Your task to perform on an android device: Clear the shopping cart on walmart. Search for amazon basics triple a on walmart, select the first entry, and add it to the cart. Image 0: 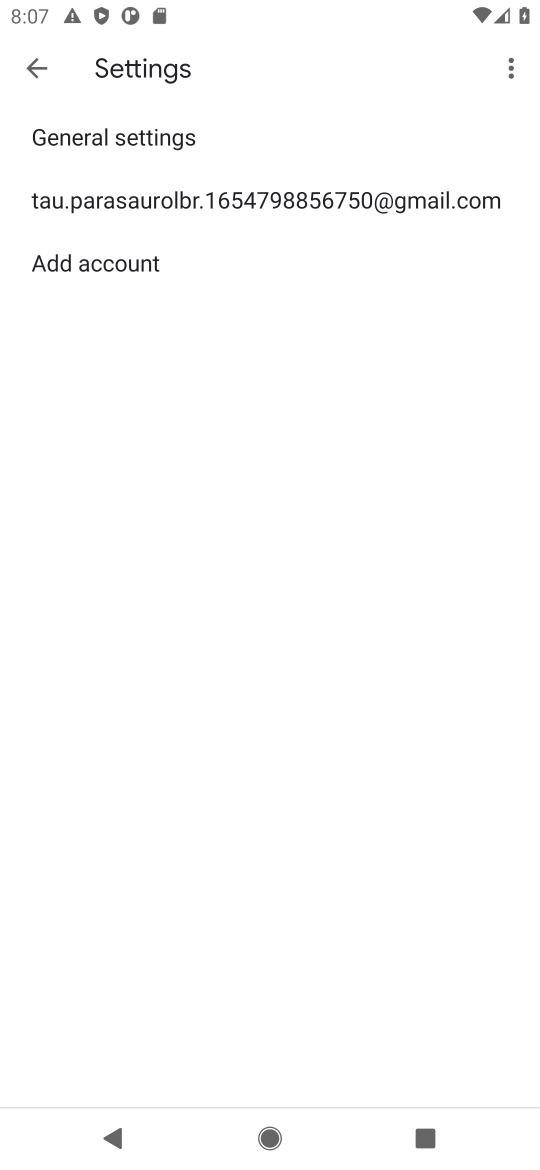
Step 0: press home button
Your task to perform on an android device: Clear the shopping cart on walmart. Search for amazon basics triple a on walmart, select the first entry, and add it to the cart. Image 1: 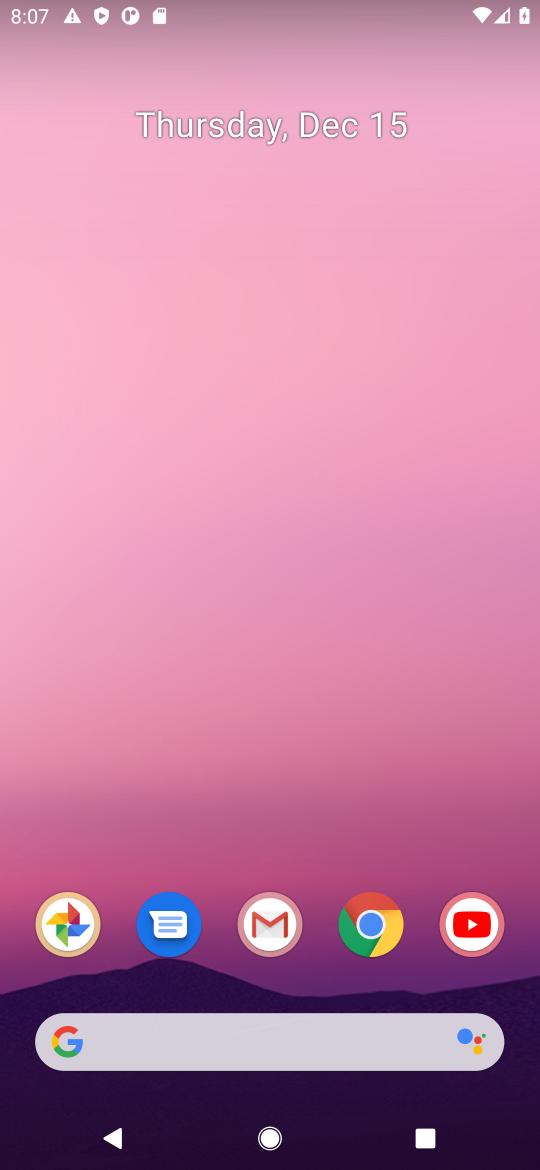
Step 1: click (354, 924)
Your task to perform on an android device: Clear the shopping cart on walmart. Search for amazon basics triple a on walmart, select the first entry, and add it to the cart. Image 2: 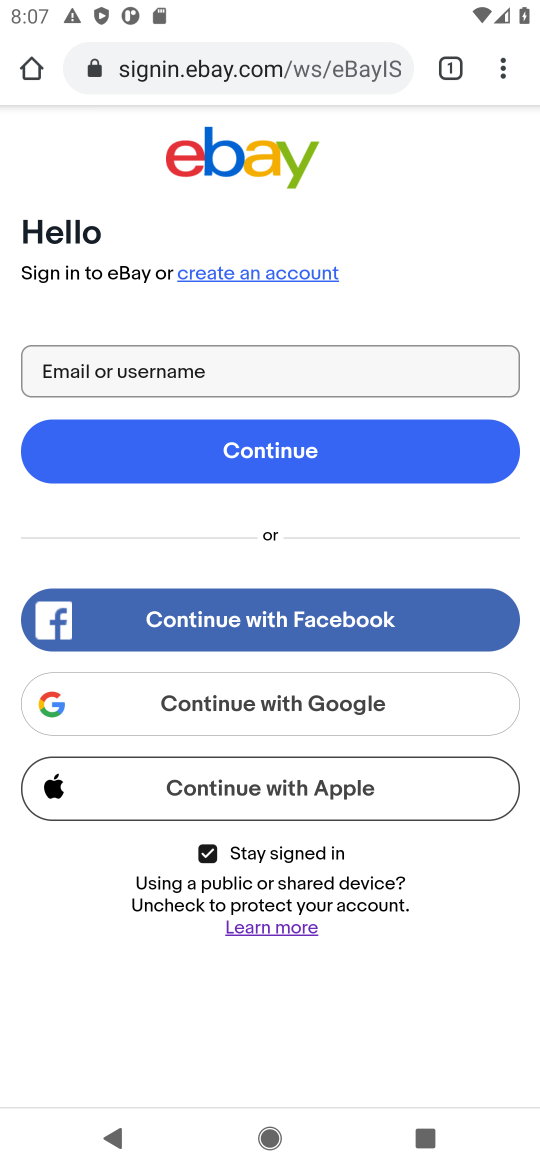
Step 2: click (226, 69)
Your task to perform on an android device: Clear the shopping cart on walmart. Search for amazon basics triple a on walmart, select the first entry, and add it to the cart. Image 3: 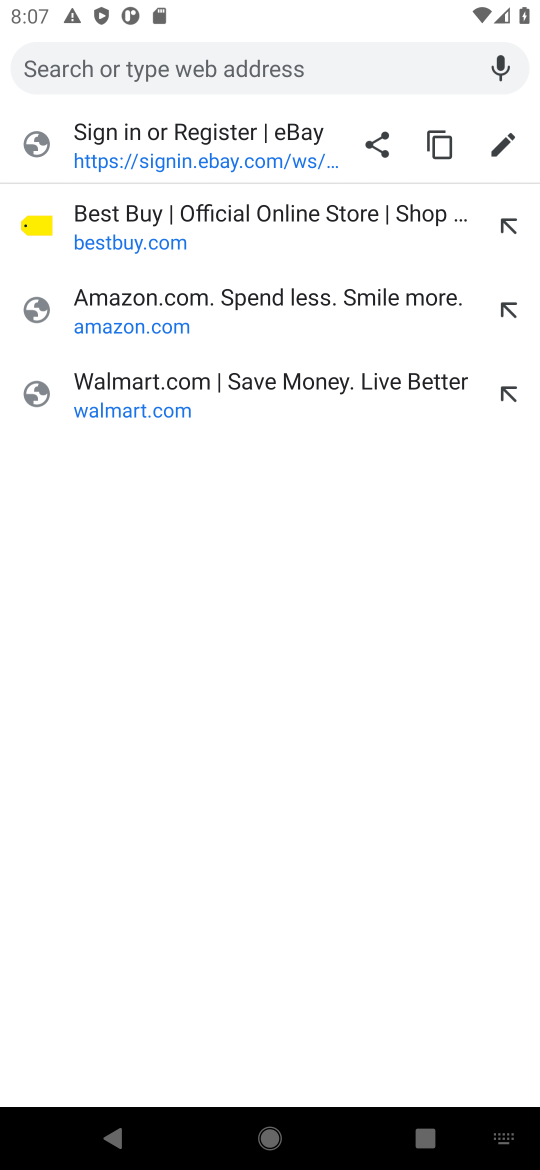
Step 3: click (190, 404)
Your task to perform on an android device: Clear the shopping cart on walmart. Search for amazon basics triple a on walmart, select the first entry, and add it to the cart. Image 4: 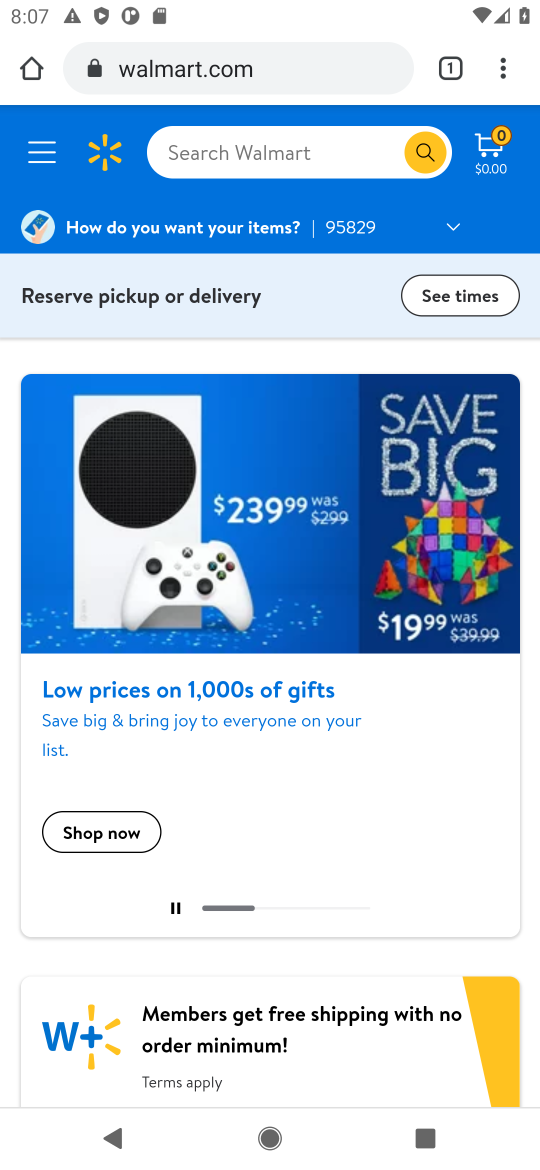
Step 4: click (498, 162)
Your task to perform on an android device: Clear the shopping cart on walmart. Search for amazon basics triple a on walmart, select the first entry, and add it to the cart. Image 5: 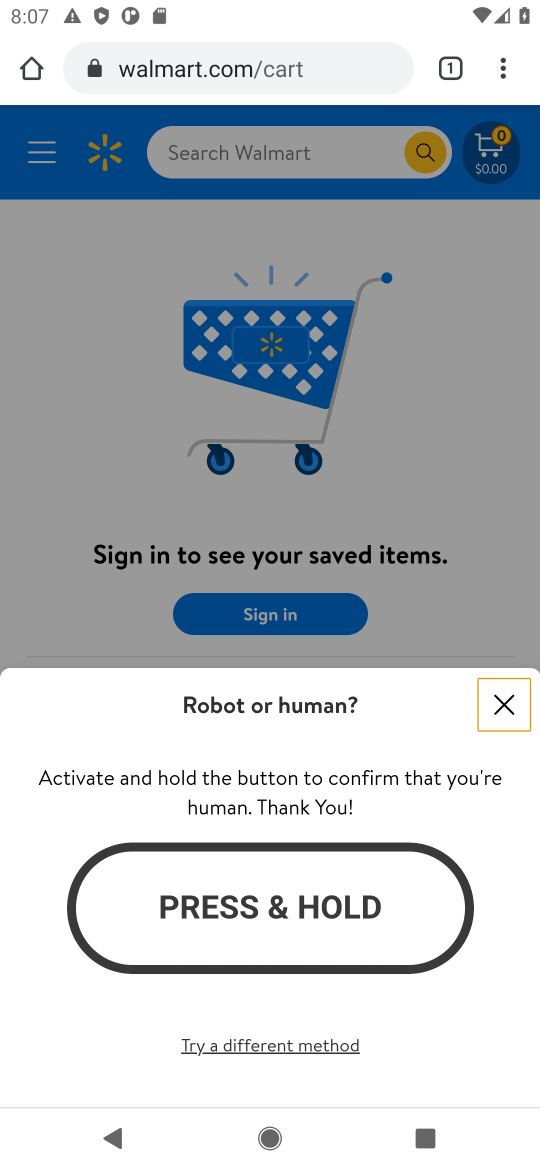
Step 5: click (511, 700)
Your task to perform on an android device: Clear the shopping cart on walmart. Search for amazon basics triple a on walmart, select the first entry, and add it to the cart. Image 6: 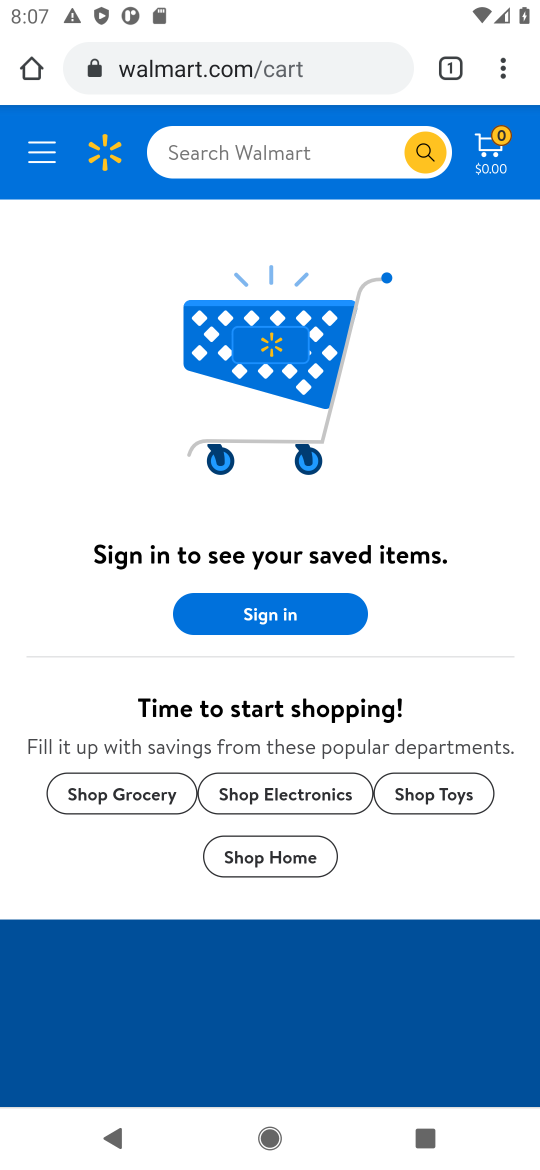
Step 6: click (286, 167)
Your task to perform on an android device: Clear the shopping cart on walmart. Search for amazon basics triple a on walmart, select the first entry, and add it to the cart. Image 7: 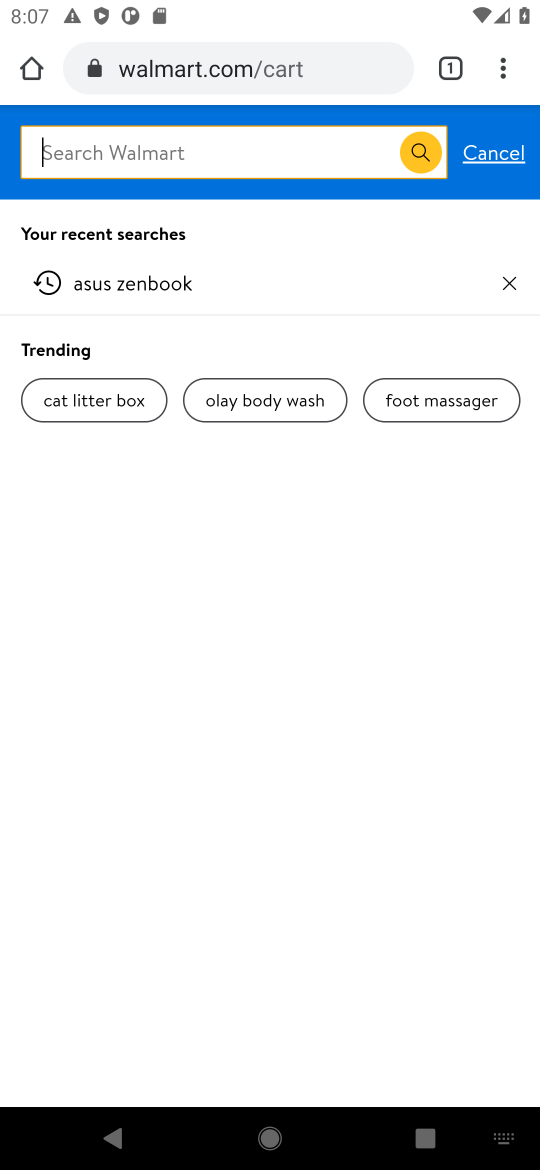
Step 7: type "amazon basics triple "
Your task to perform on an android device: Clear the shopping cart on walmart. Search for amazon basics triple a on walmart, select the first entry, and add it to the cart. Image 8: 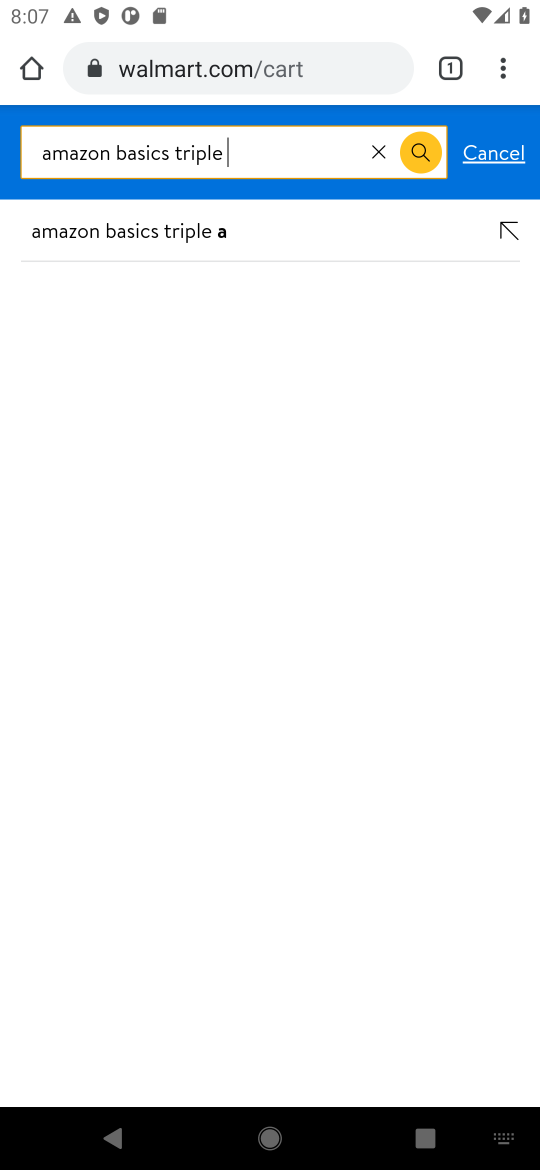
Step 8: click (417, 157)
Your task to perform on an android device: Clear the shopping cart on walmart. Search for amazon basics triple a on walmart, select the first entry, and add it to the cart. Image 9: 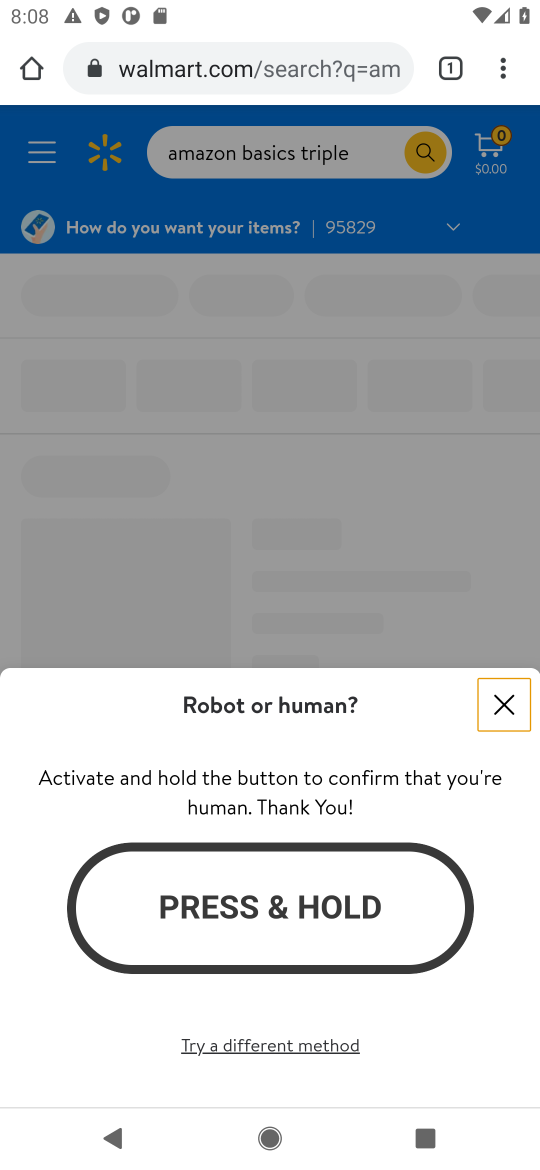
Step 9: click (484, 716)
Your task to perform on an android device: Clear the shopping cart on walmart. Search for amazon basics triple a on walmart, select the first entry, and add it to the cart. Image 10: 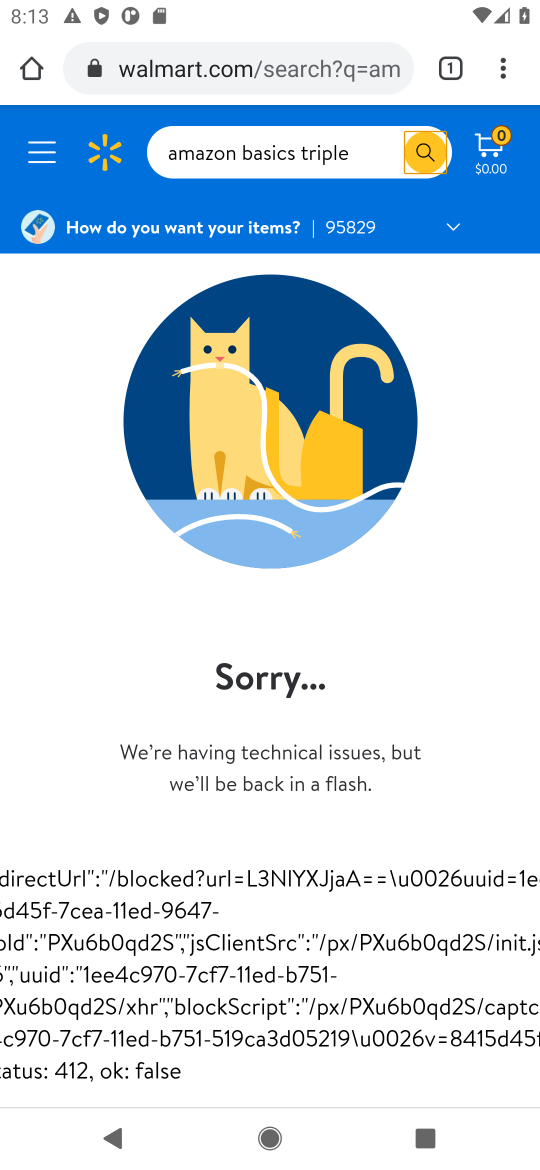
Step 10: task complete